Your task to perform on an android device: turn pop-ups off in chrome Image 0: 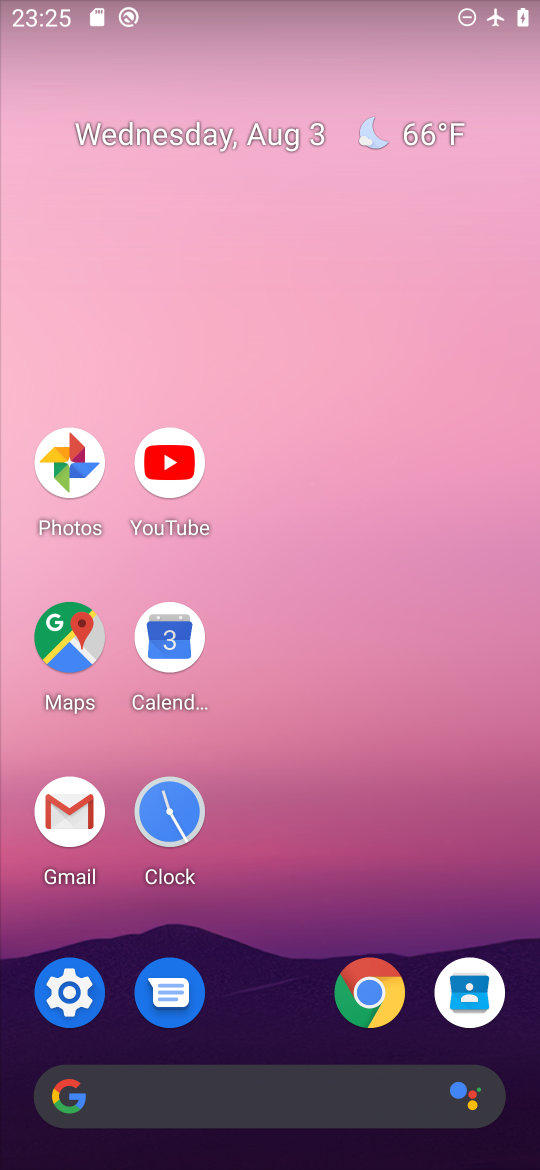
Step 0: click (366, 997)
Your task to perform on an android device: turn pop-ups off in chrome Image 1: 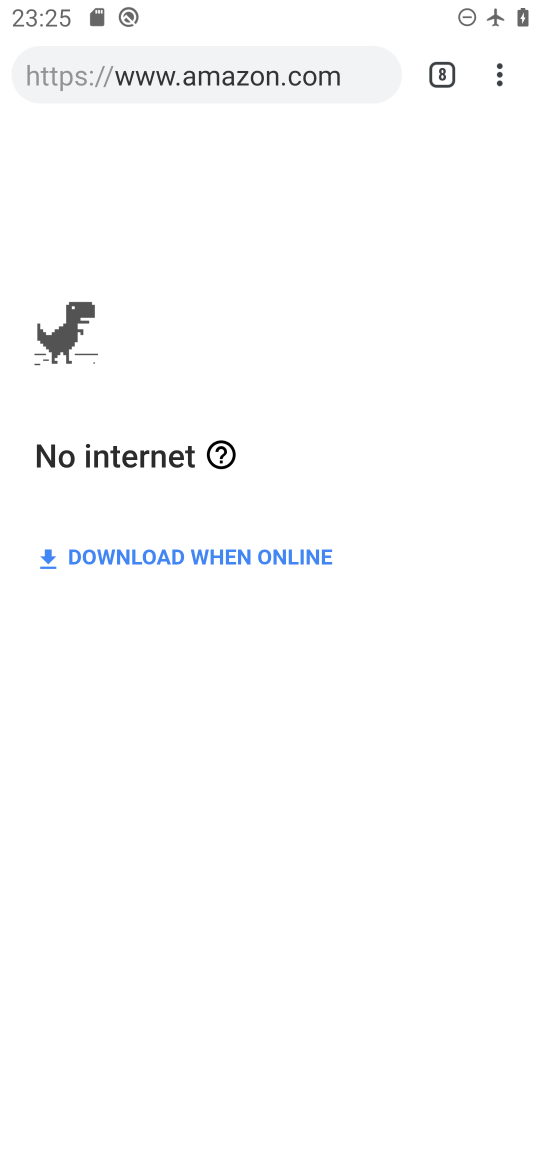
Step 1: click (500, 80)
Your task to perform on an android device: turn pop-ups off in chrome Image 2: 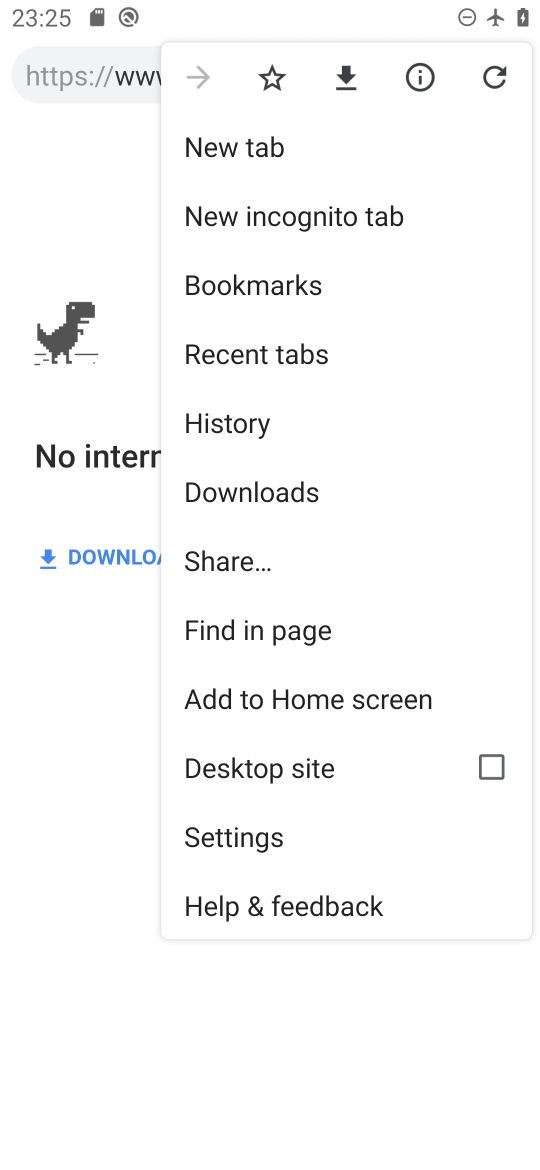
Step 2: click (223, 830)
Your task to perform on an android device: turn pop-ups off in chrome Image 3: 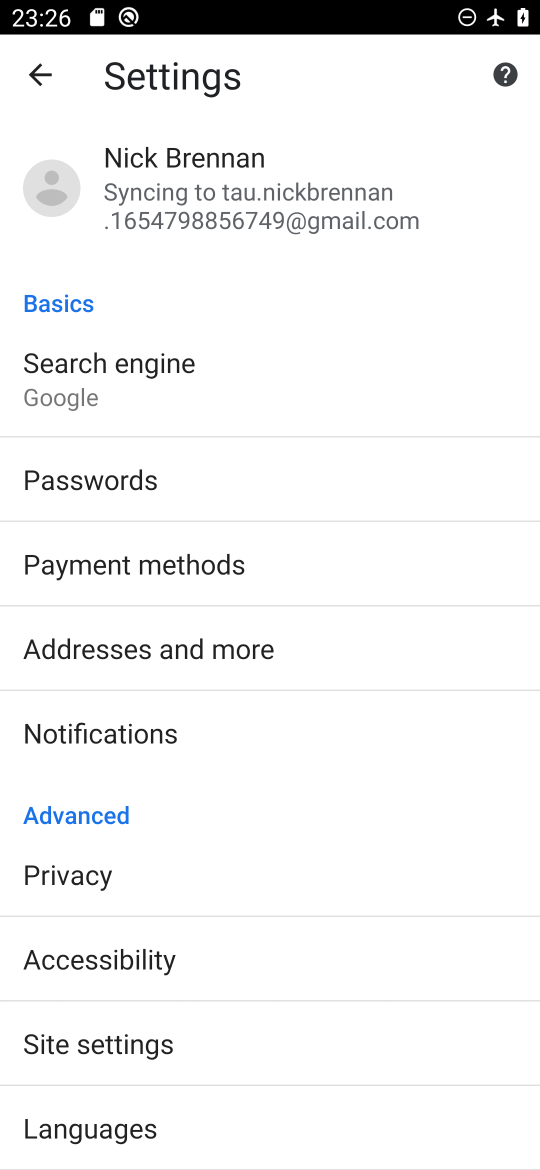
Step 3: drag from (255, 1043) to (216, 462)
Your task to perform on an android device: turn pop-ups off in chrome Image 4: 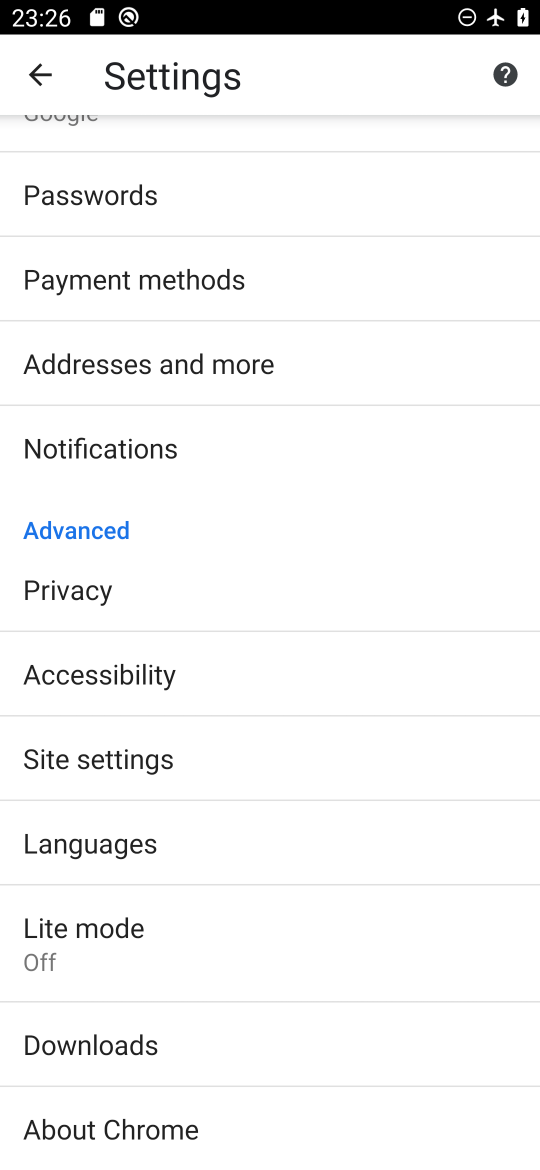
Step 4: click (111, 769)
Your task to perform on an android device: turn pop-ups off in chrome Image 5: 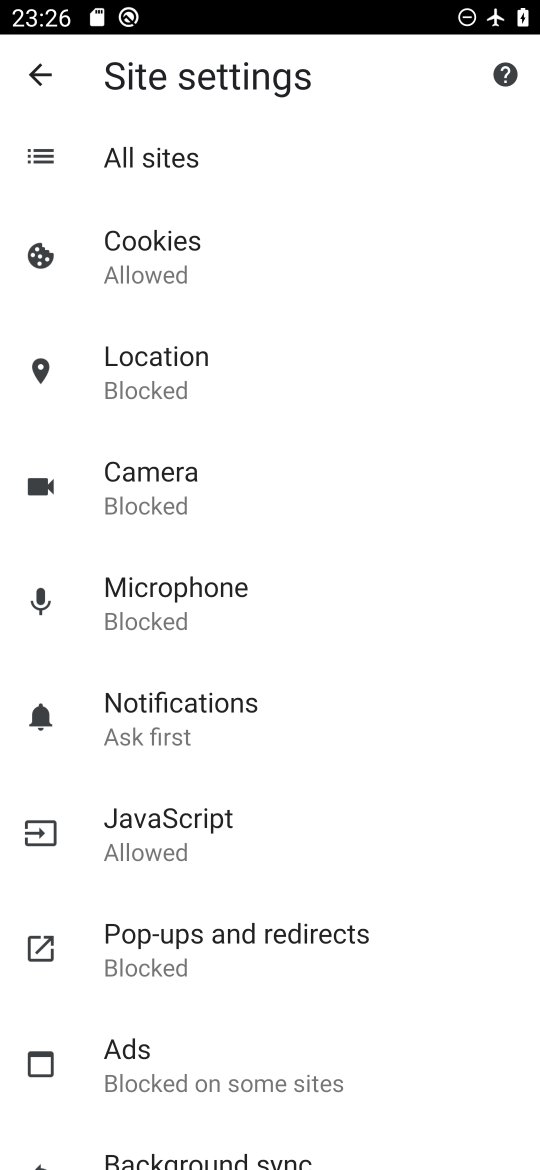
Step 5: click (155, 931)
Your task to perform on an android device: turn pop-ups off in chrome Image 6: 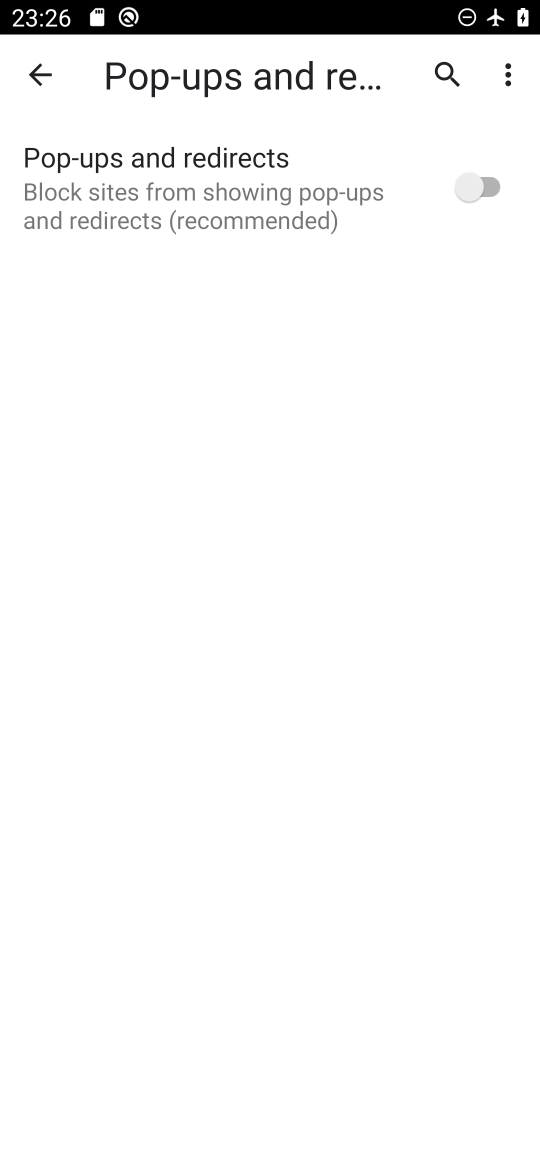
Step 6: task complete